Your task to perform on an android device: What's on my calendar today? Image 0: 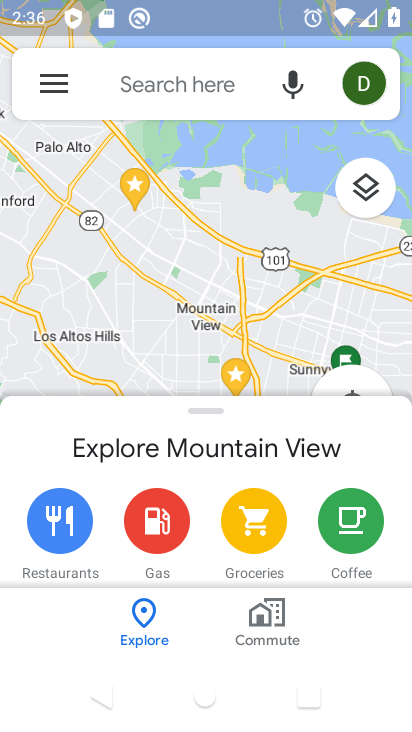
Step 0: press home button
Your task to perform on an android device: What's on my calendar today? Image 1: 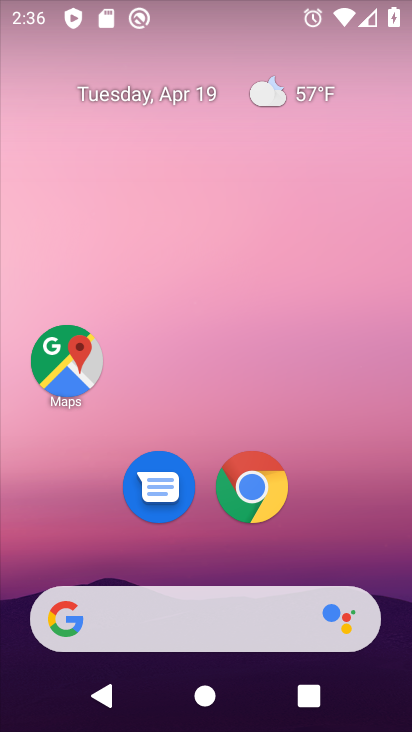
Step 1: drag from (397, 533) to (360, 115)
Your task to perform on an android device: What's on my calendar today? Image 2: 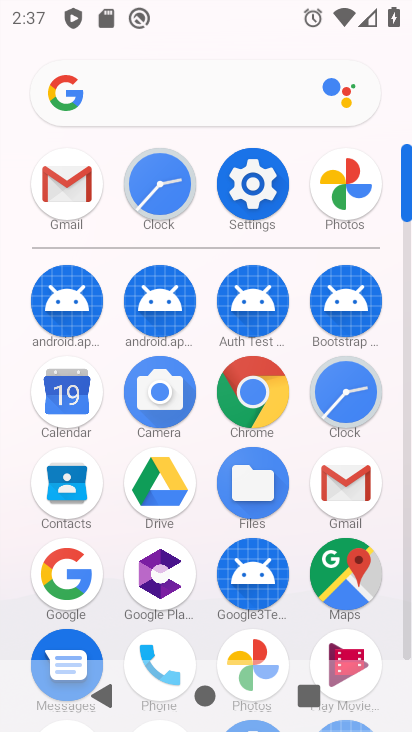
Step 2: click (71, 406)
Your task to perform on an android device: What's on my calendar today? Image 3: 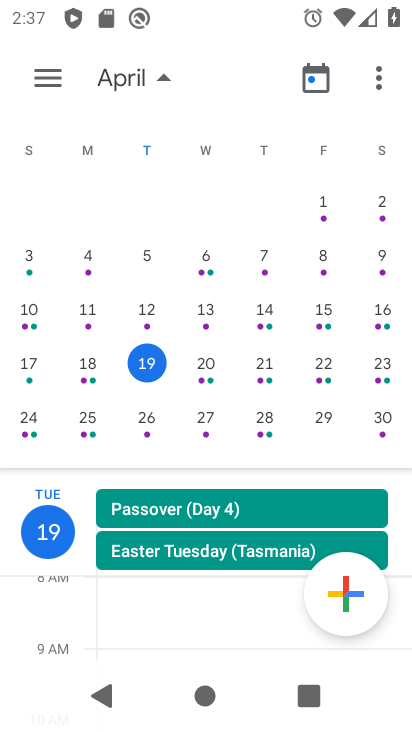
Step 3: task complete